Your task to perform on an android device: What's the weather today? Image 0: 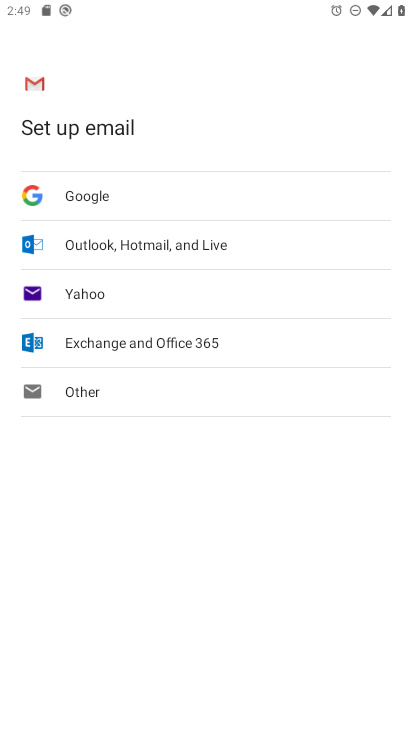
Step 0: press home button
Your task to perform on an android device: What's the weather today? Image 1: 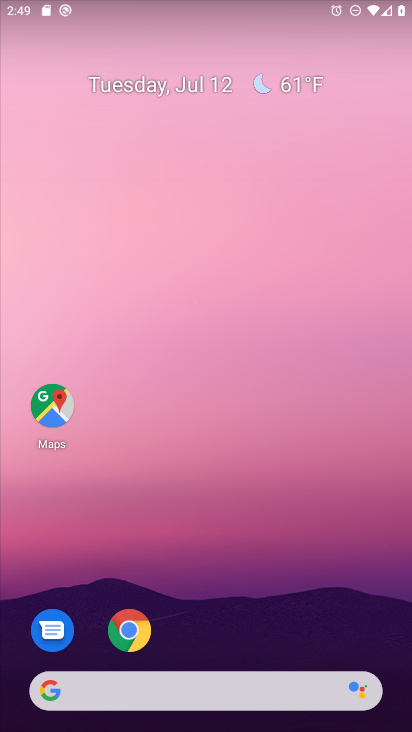
Step 1: drag from (219, 657) to (219, 271)
Your task to perform on an android device: What's the weather today? Image 2: 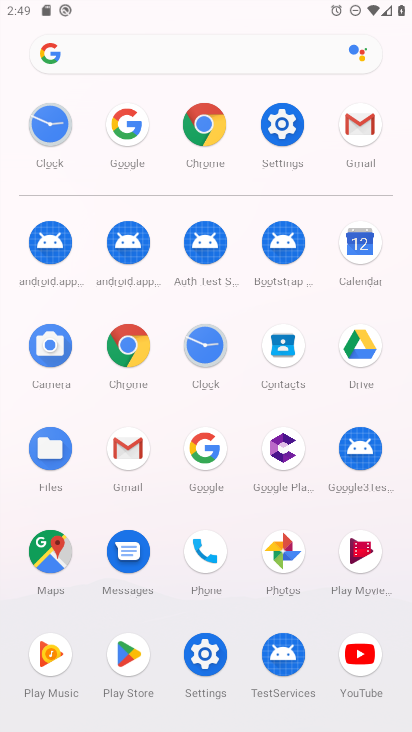
Step 2: click (199, 446)
Your task to perform on an android device: What's the weather today? Image 3: 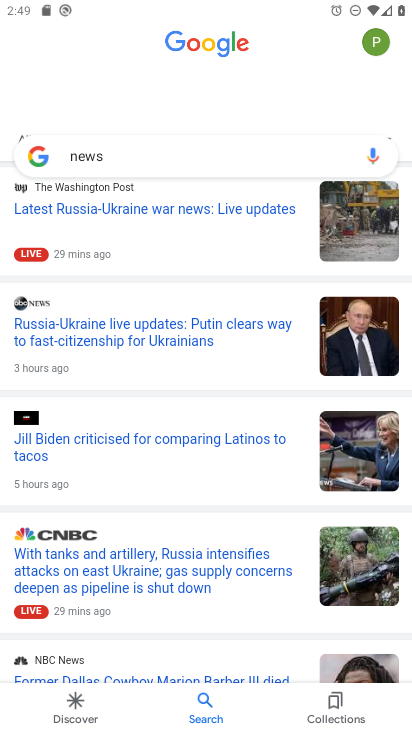
Step 3: click (157, 156)
Your task to perform on an android device: What's the weather today? Image 4: 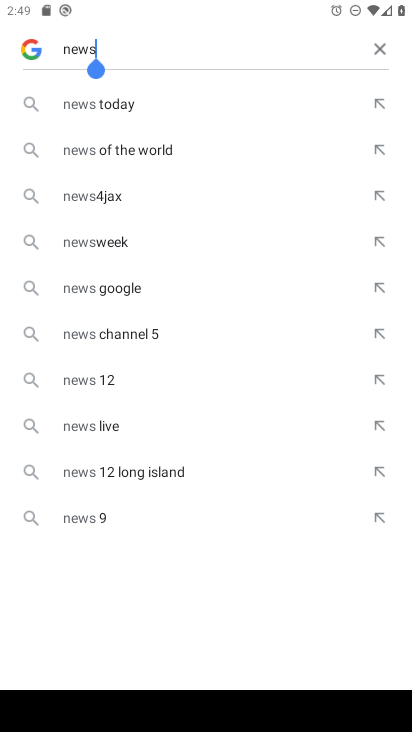
Step 4: click (377, 46)
Your task to perform on an android device: What's the weather today? Image 5: 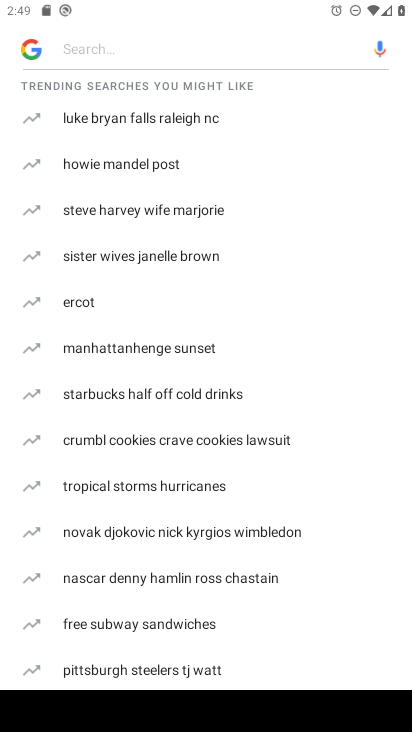
Step 5: type "weather"
Your task to perform on an android device: What's the weather today? Image 6: 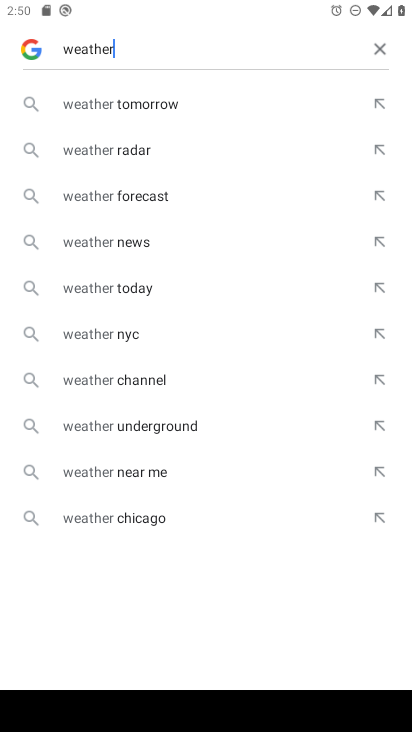
Step 6: click (155, 280)
Your task to perform on an android device: What's the weather today? Image 7: 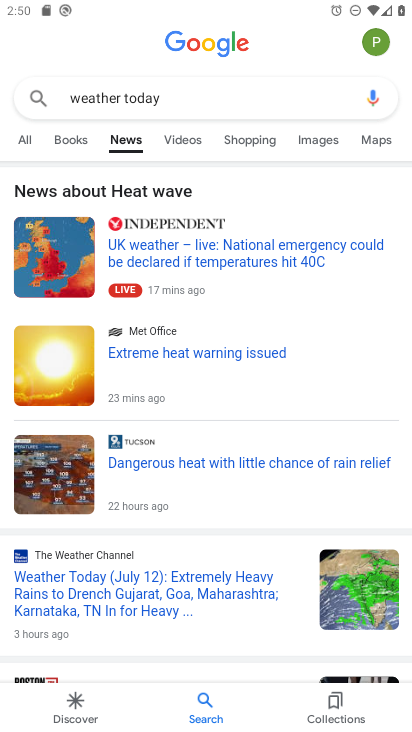
Step 7: click (31, 135)
Your task to perform on an android device: What's the weather today? Image 8: 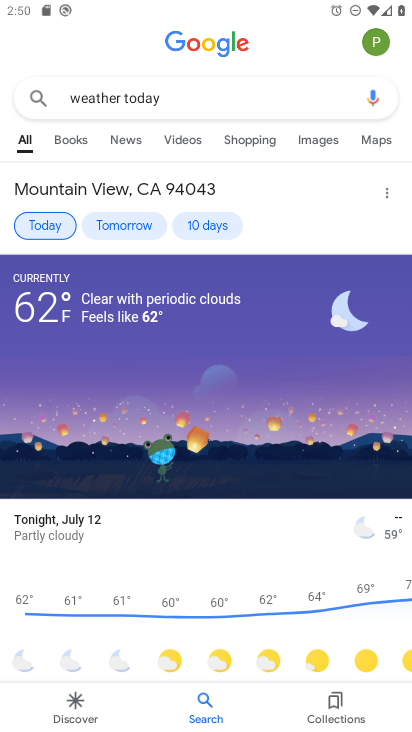
Step 8: task complete